Your task to perform on an android device: Do I have any events today? Image 0: 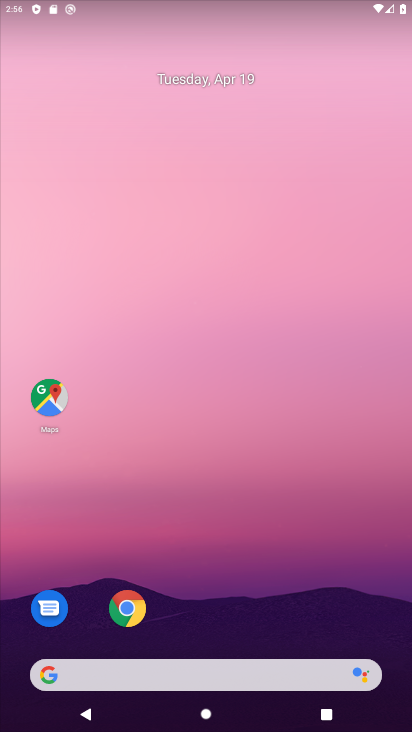
Step 0: drag from (224, 602) to (278, 231)
Your task to perform on an android device: Do I have any events today? Image 1: 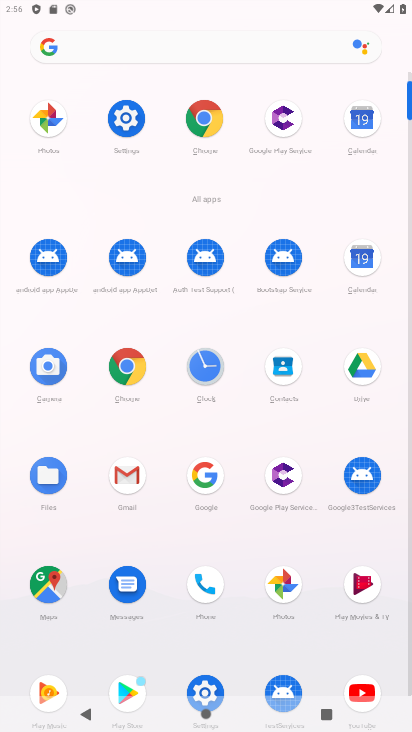
Step 1: click (372, 259)
Your task to perform on an android device: Do I have any events today? Image 2: 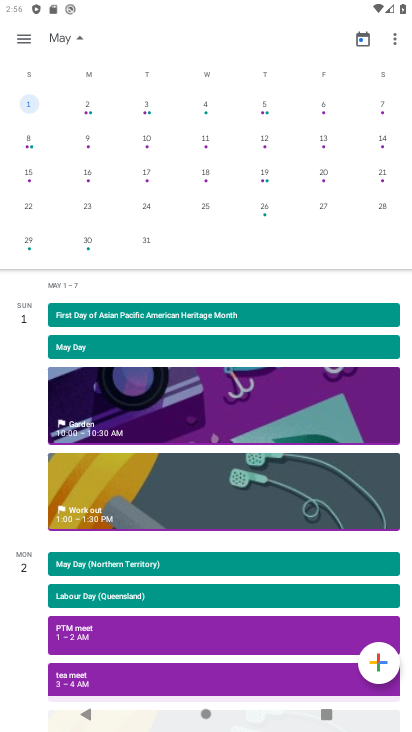
Step 2: task complete